Your task to perform on an android device: When is my next appointment? Image 0: 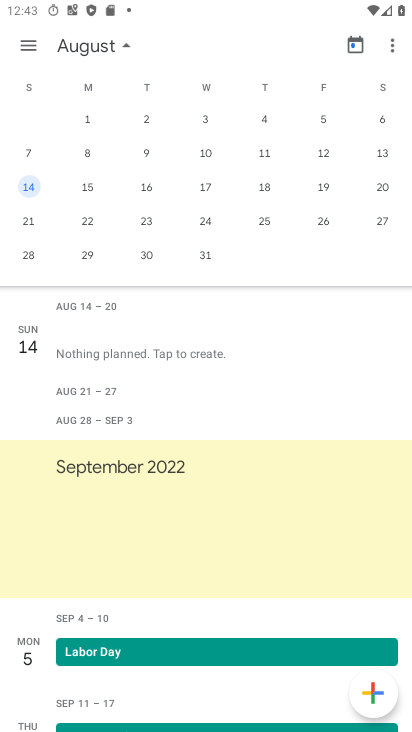
Step 0: drag from (53, 190) to (348, 193)
Your task to perform on an android device: When is my next appointment? Image 1: 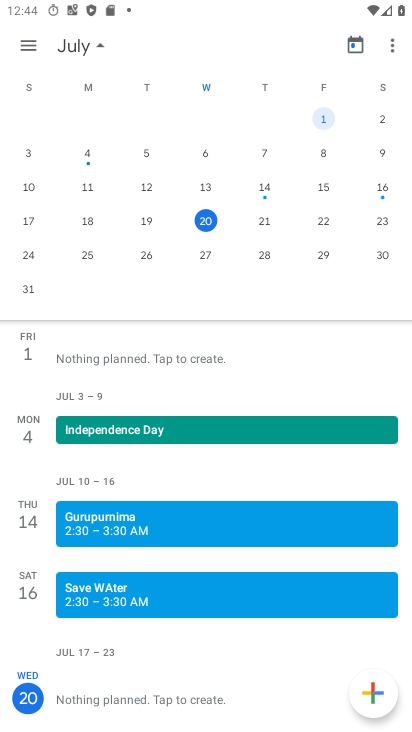
Step 1: click (200, 211)
Your task to perform on an android device: When is my next appointment? Image 2: 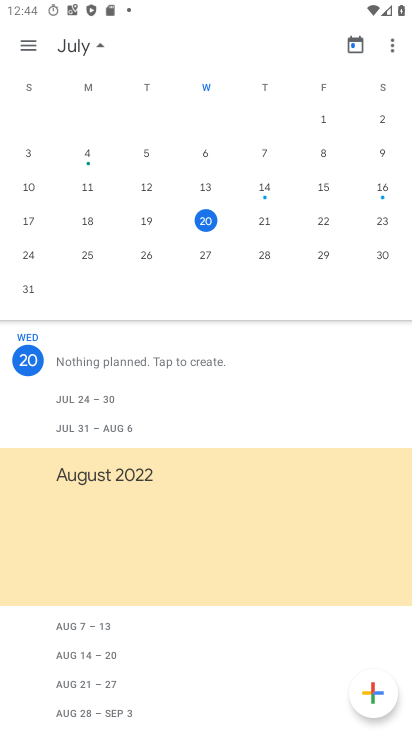
Step 2: task complete